Your task to perform on an android device: open app "Facebook Messenger" (install if not already installed) and go to login screen Image 0: 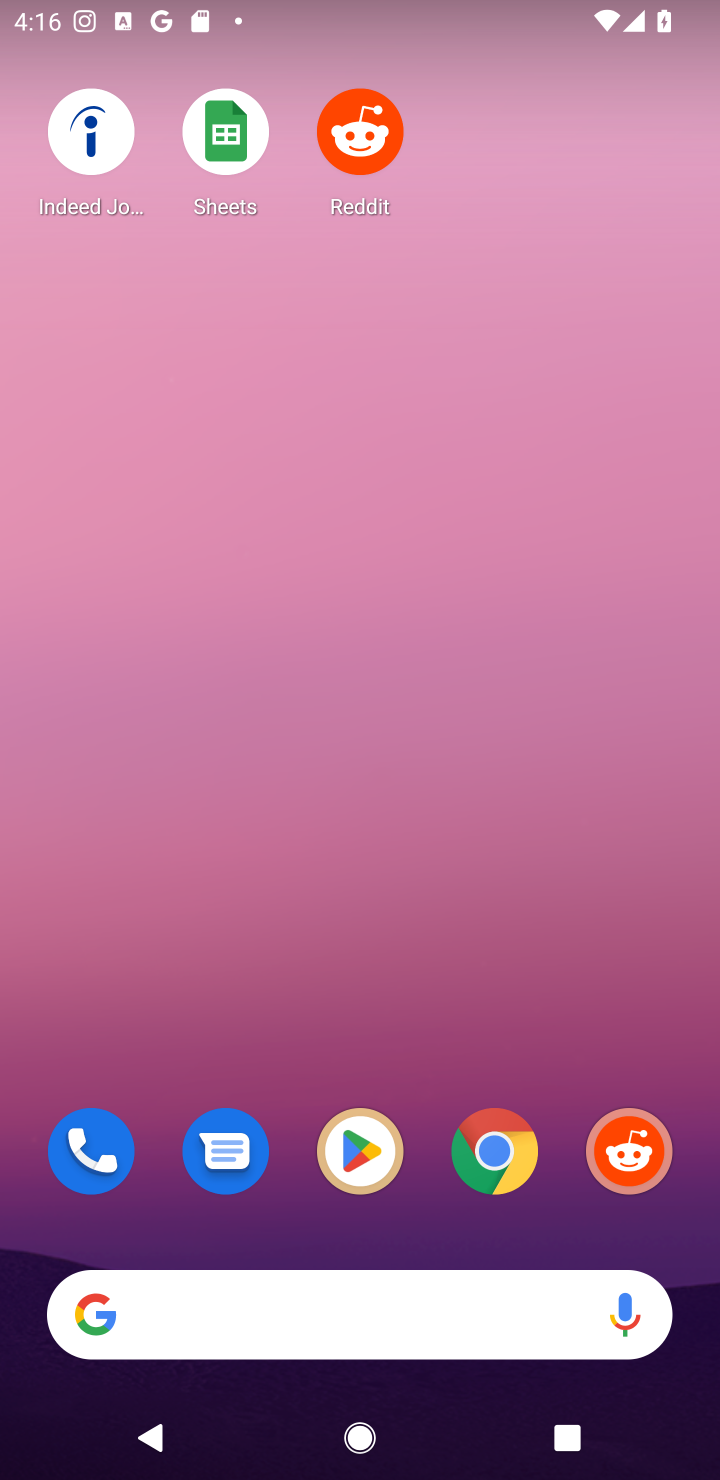
Step 0: press home button
Your task to perform on an android device: open app "Facebook Messenger" (install if not already installed) and go to login screen Image 1: 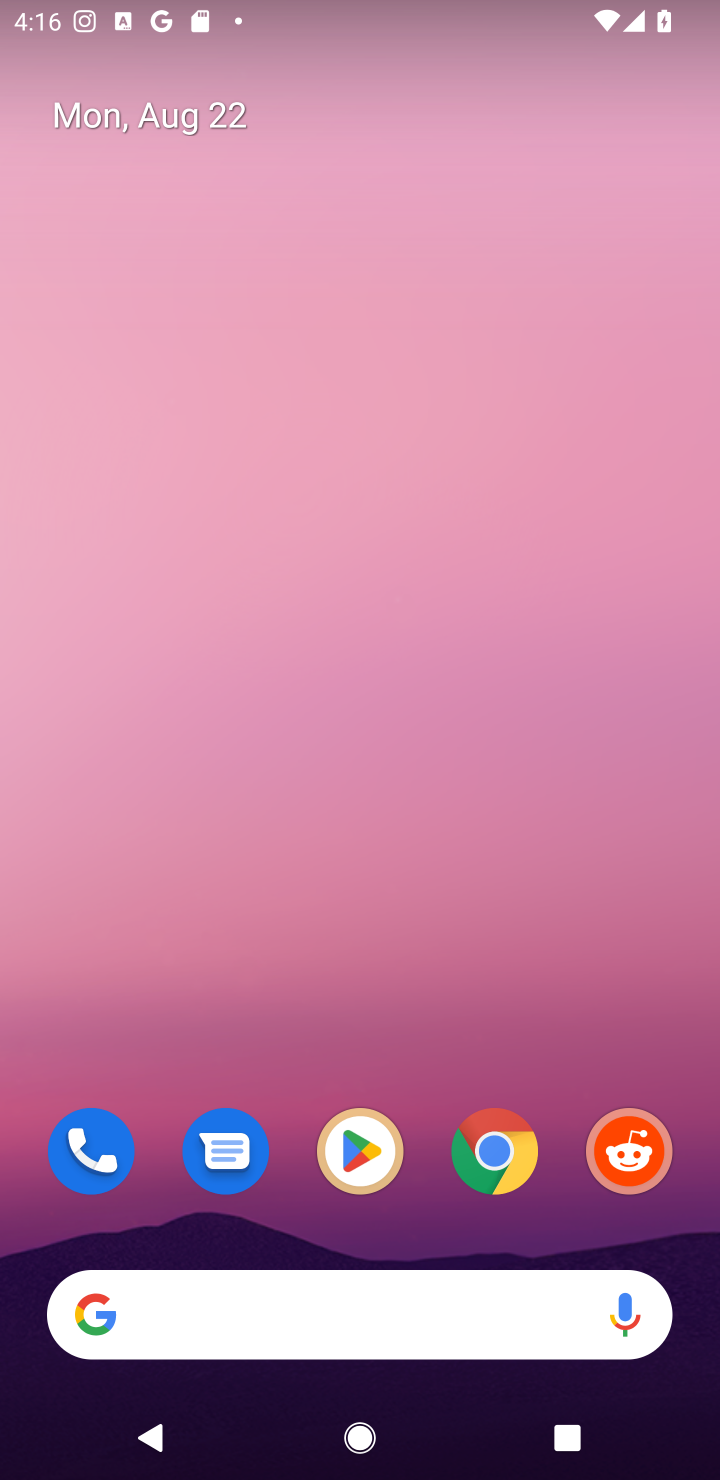
Step 1: click (363, 1146)
Your task to perform on an android device: open app "Facebook Messenger" (install if not already installed) and go to login screen Image 2: 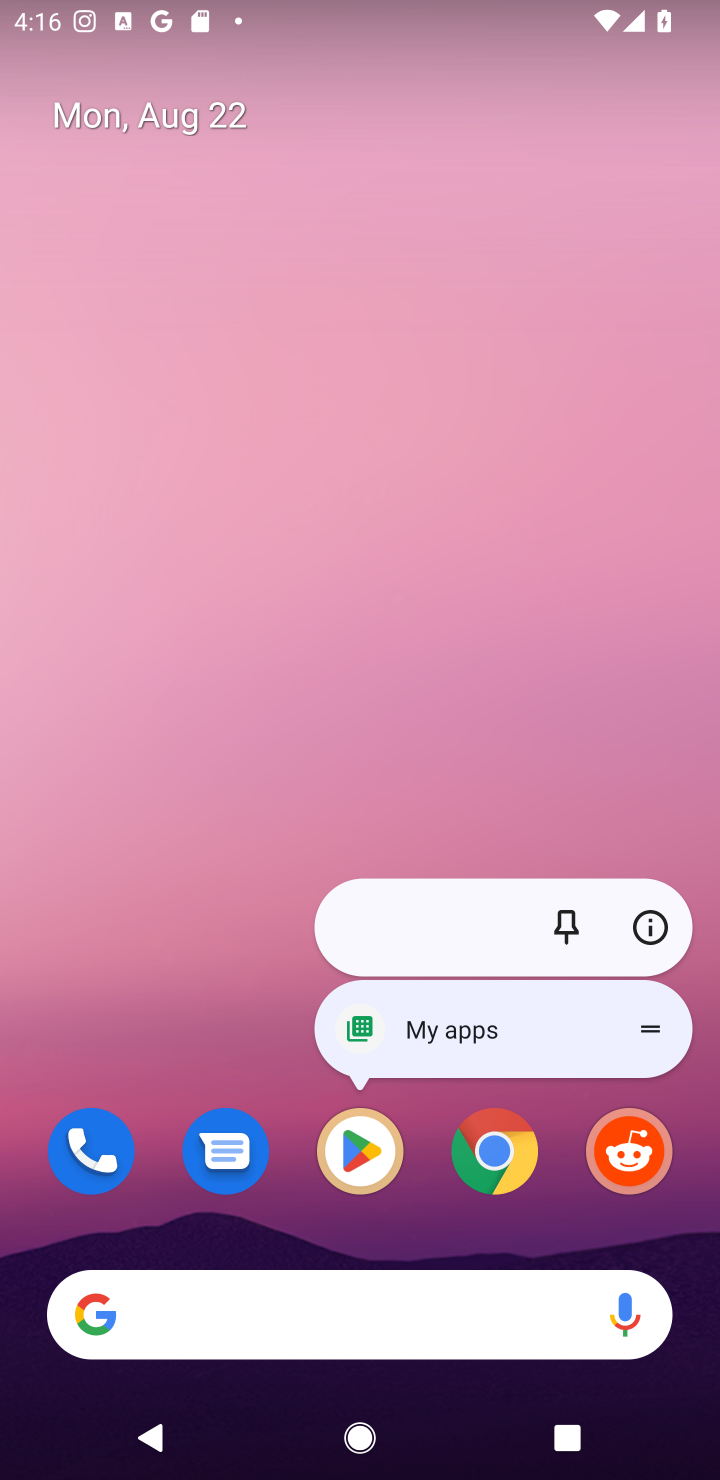
Step 2: click (363, 1146)
Your task to perform on an android device: open app "Facebook Messenger" (install if not already installed) and go to login screen Image 3: 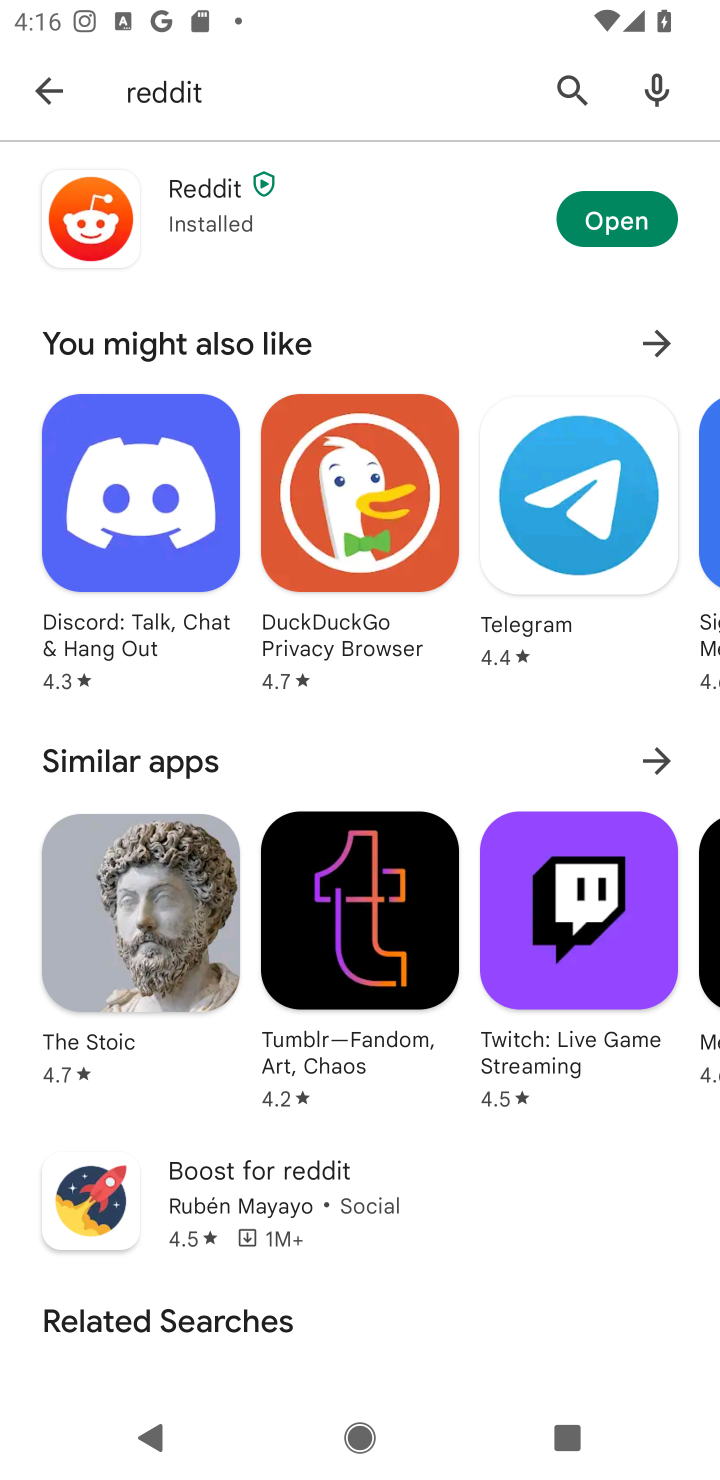
Step 3: click (573, 86)
Your task to perform on an android device: open app "Facebook Messenger" (install if not already installed) and go to login screen Image 4: 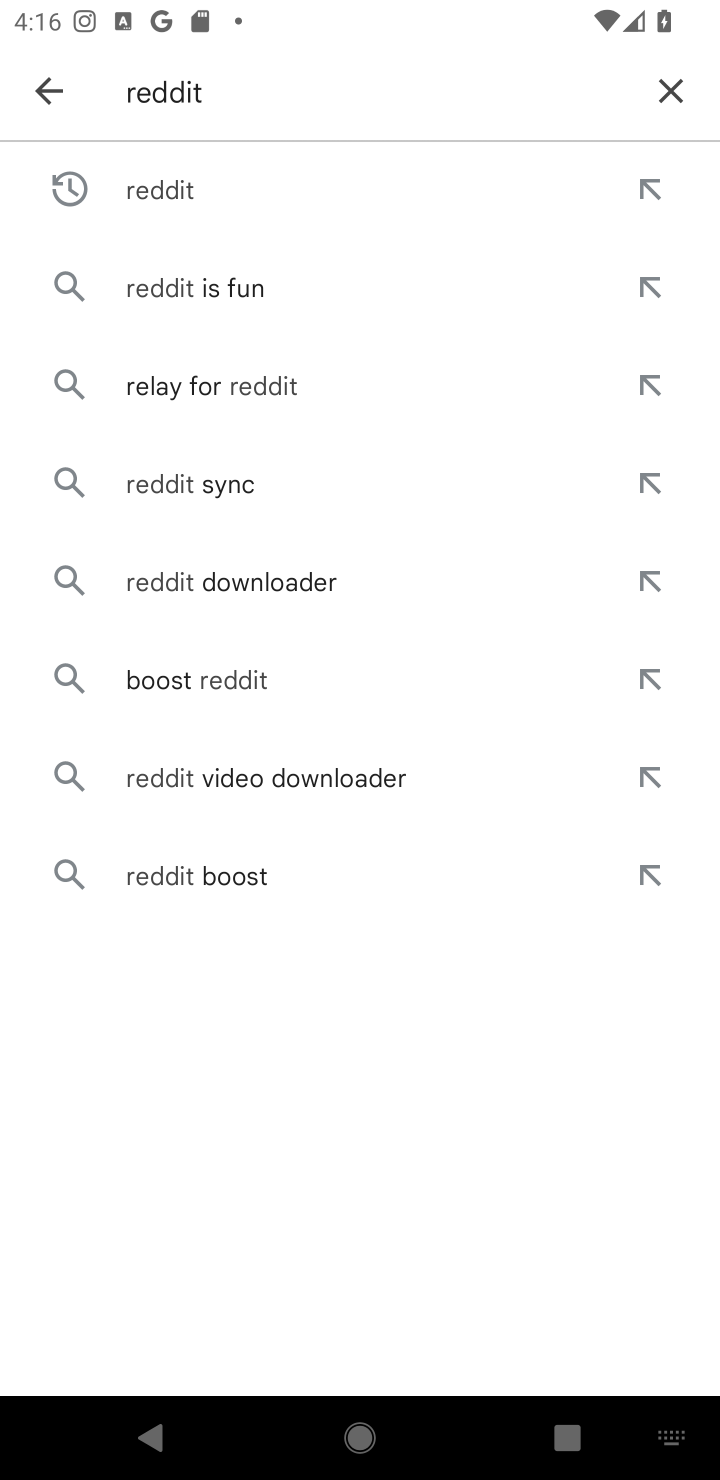
Step 4: click (673, 84)
Your task to perform on an android device: open app "Facebook Messenger" (install if not already installed) and go to login screen Image 5: 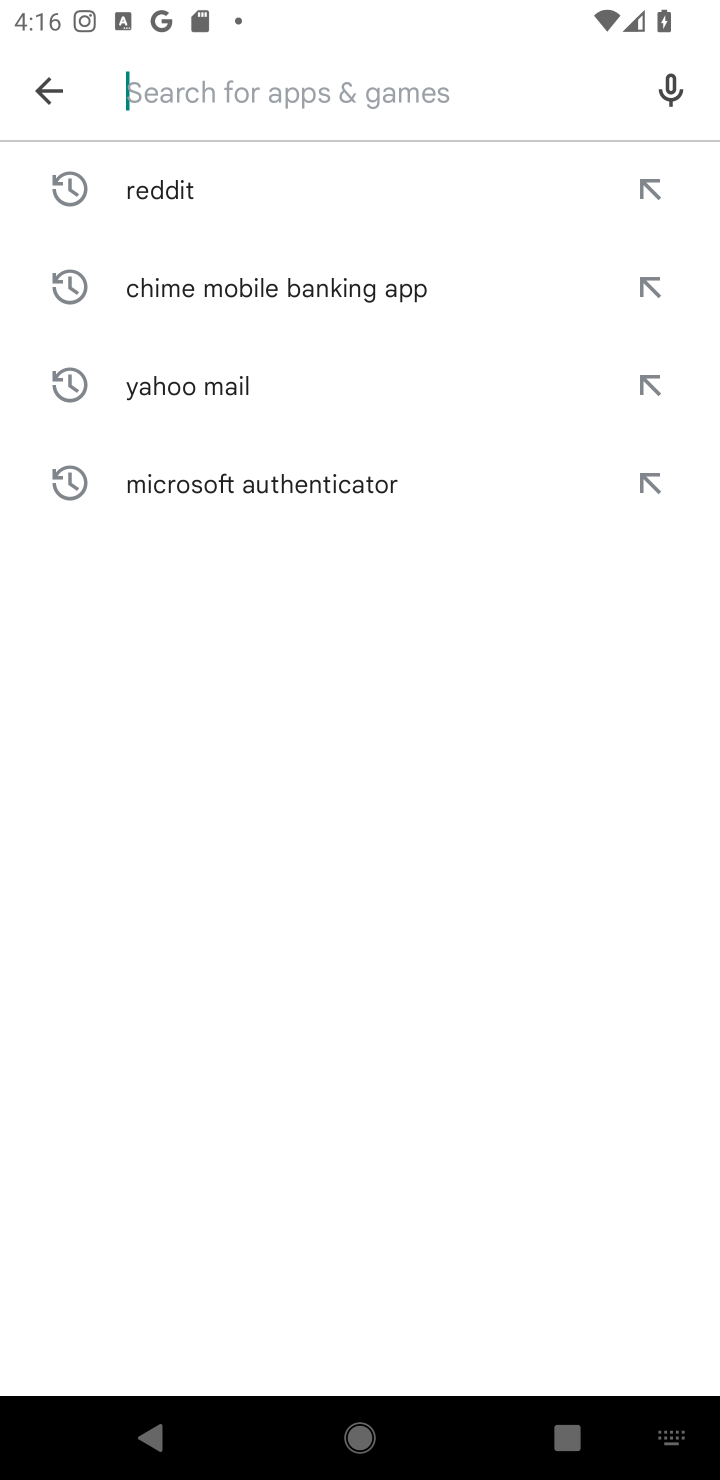
Step 5: type "Facebook Messenger"
Your task to perform on an android device: open app "Facebook Messenger" (install if not already installed) and go to login screen Image 6: 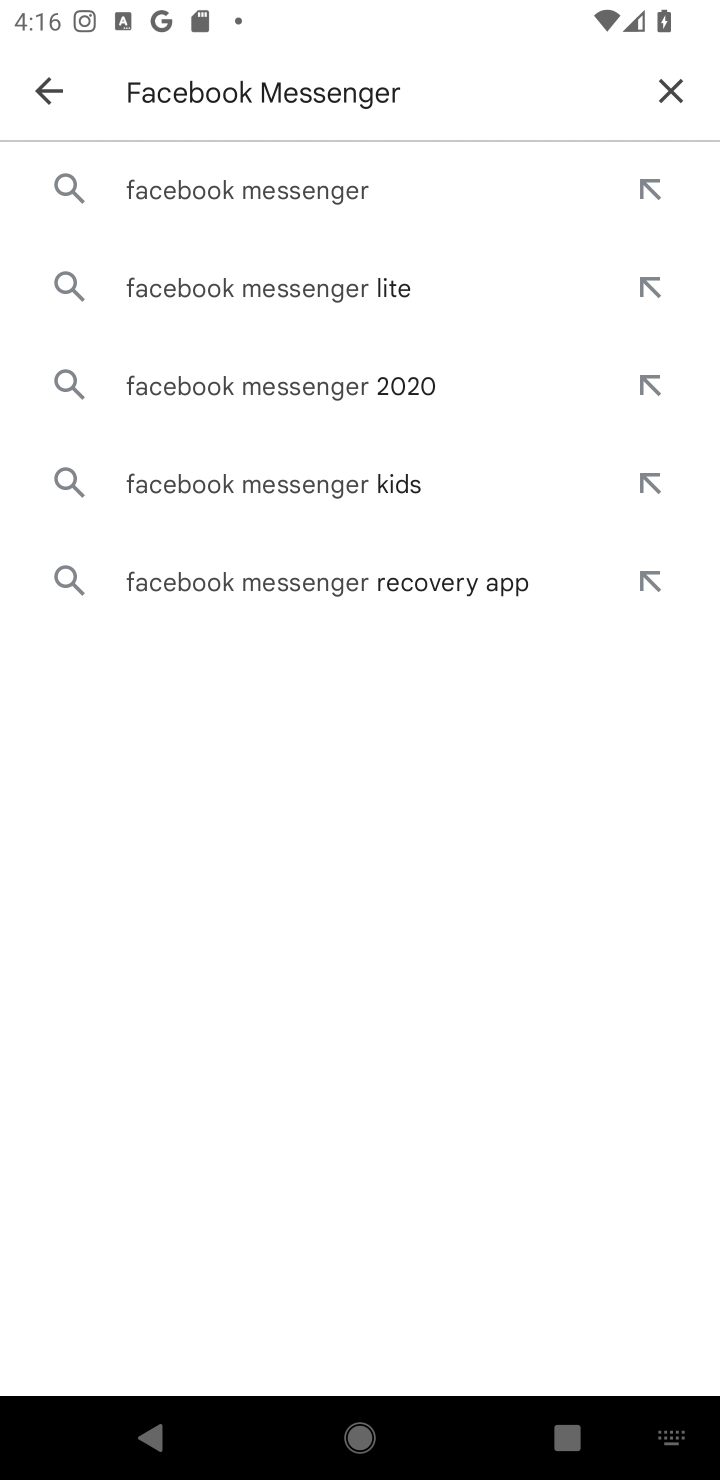
Step 6: click (333, 203)
Your task to perform on an android device: open app "Facebook Messenger" (install if not already installed) and go to login screen Image 7: 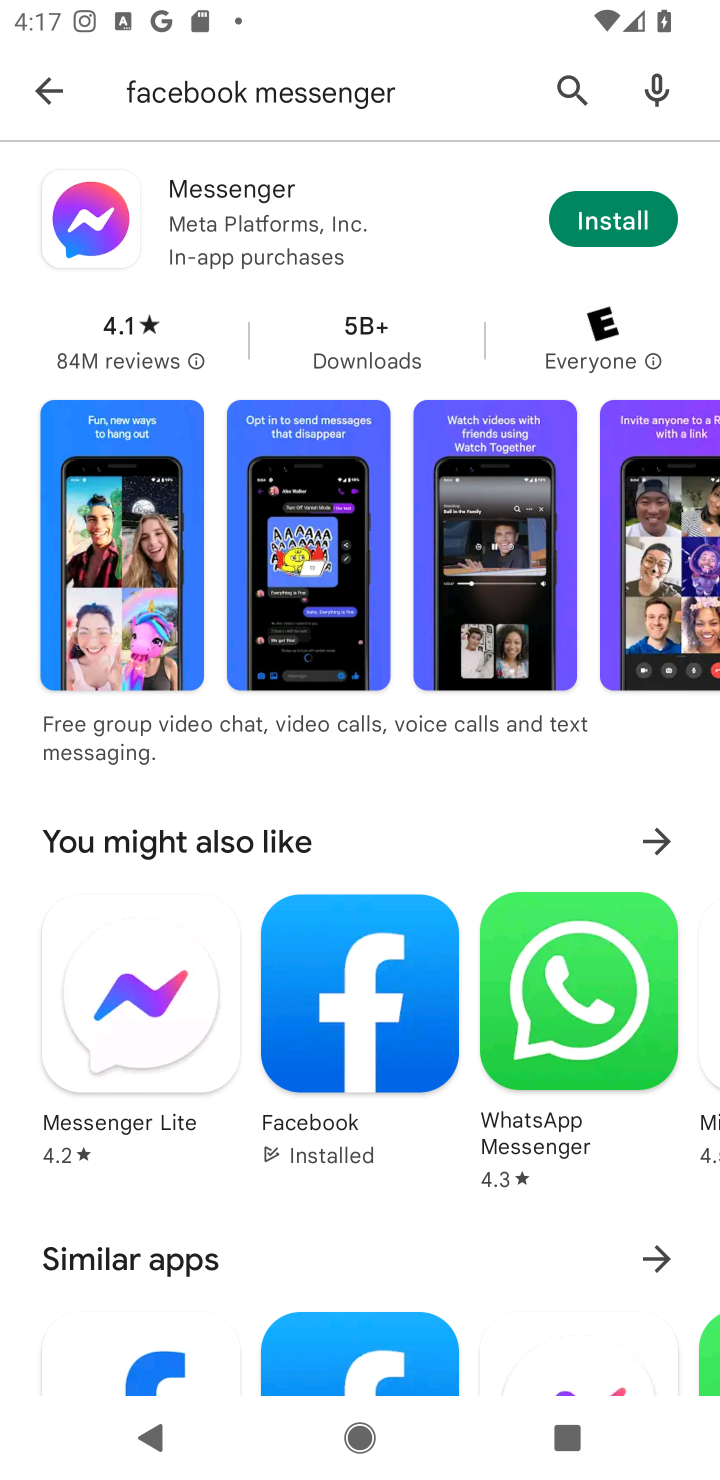
Step 7: click (594, 229)
Your task to perform on an android device: open app "Facebook Messenger" (install if not already installed) and go to login screen Image 8: 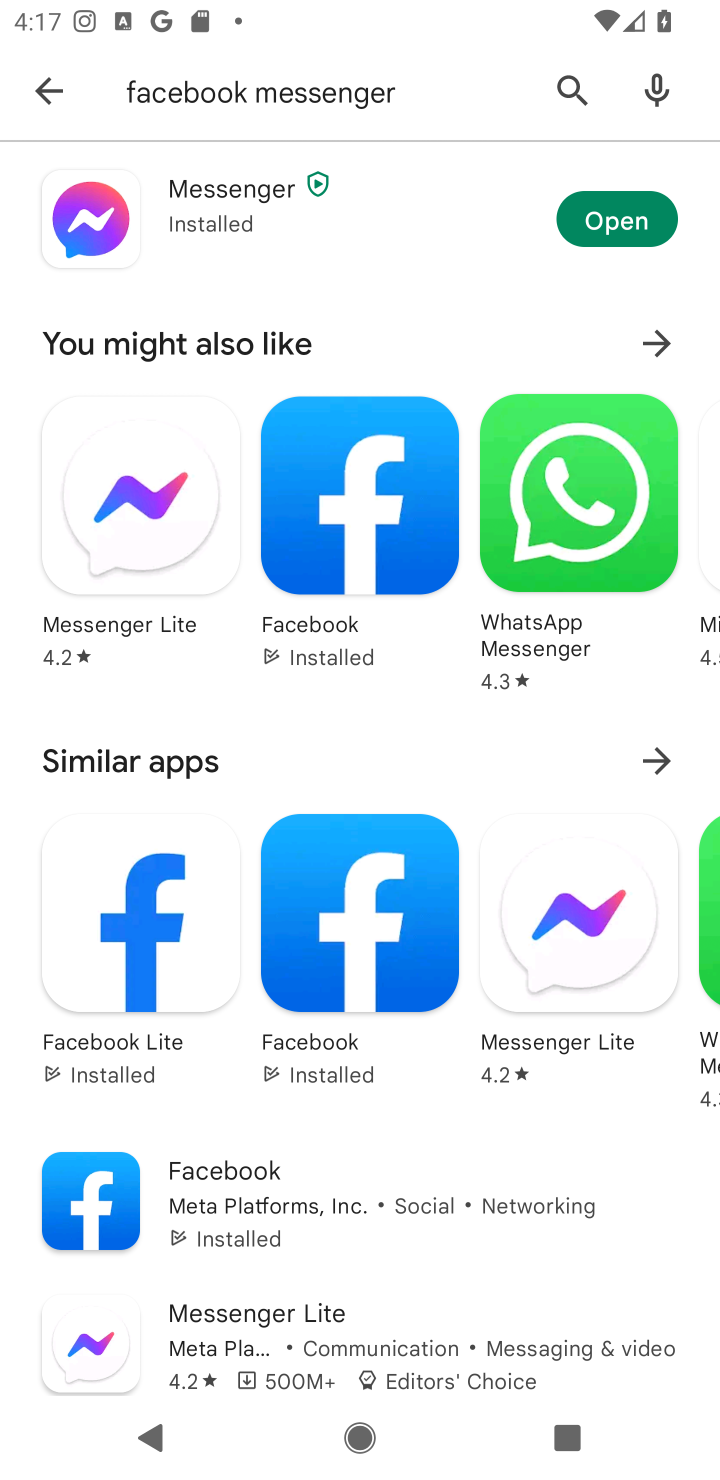
Step 8: click (600, 219)
Your task to perform on an android device: open app "Facebook Messenger" (install if not already installed) and go to login screen Image 9: 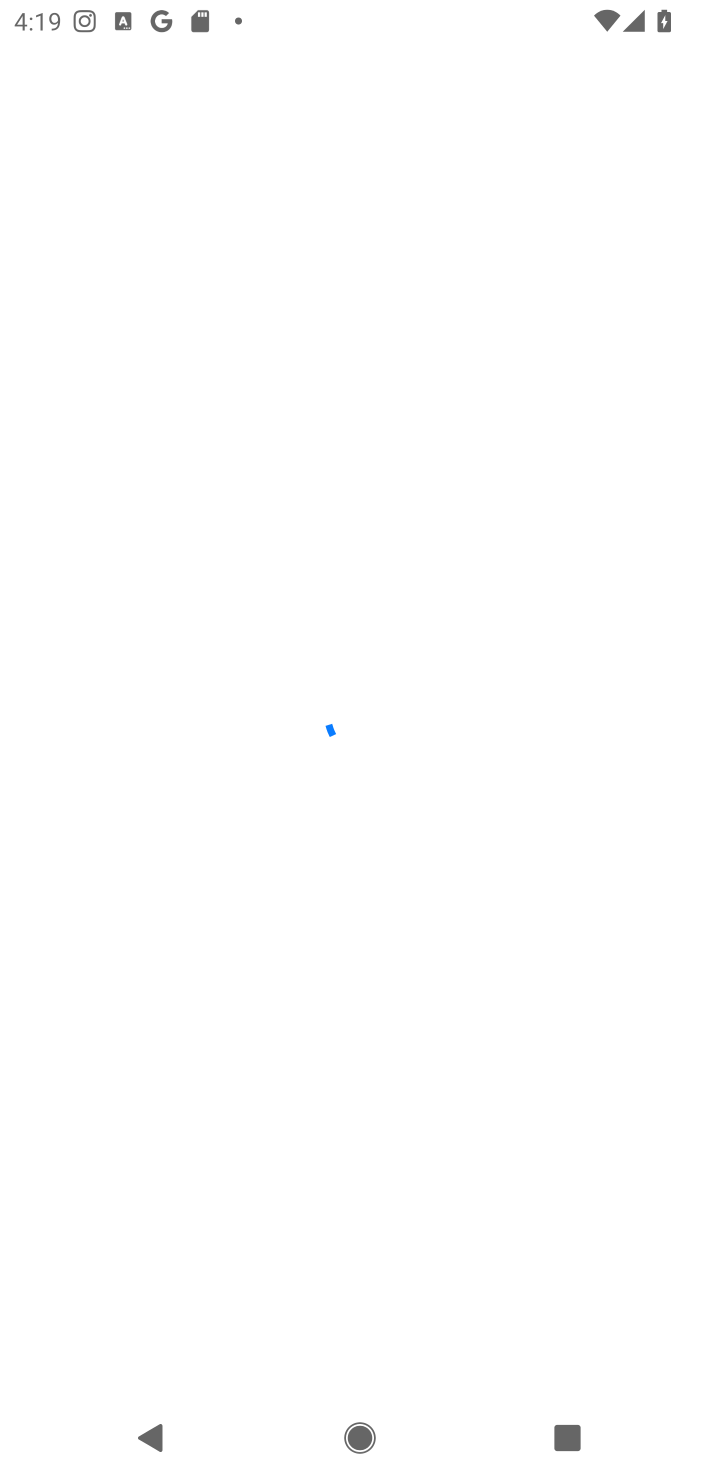
Step 9: task complete